Your task to perform on an android device: install app "Adobe Acrobat Reader: Edit PDF" Image 0: 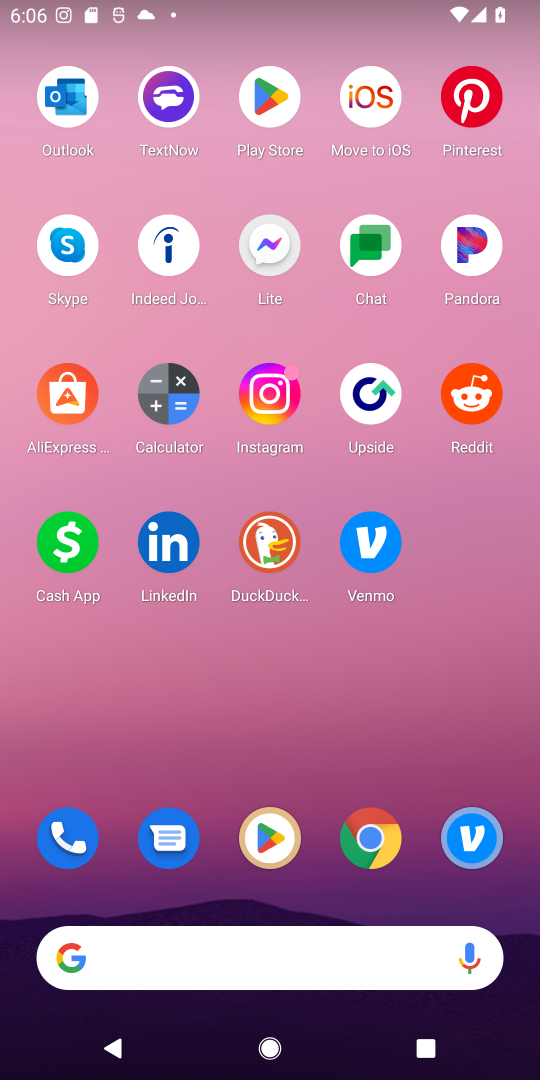
Step 0: click (268, 839)
Your task to perform on an android device: install app "Adobe Acrobat Reader: Edit PDF" Image 1: 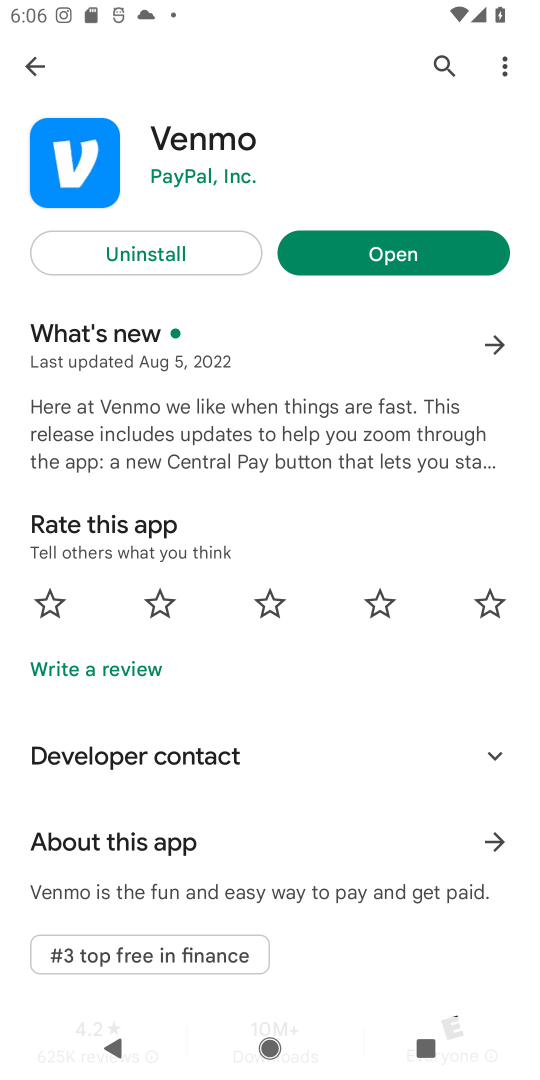
Step 1: click (444, 63)
Your task to perform on an android device: install app "Adobe Acrobat Reader: Edit PDF" Image 2: 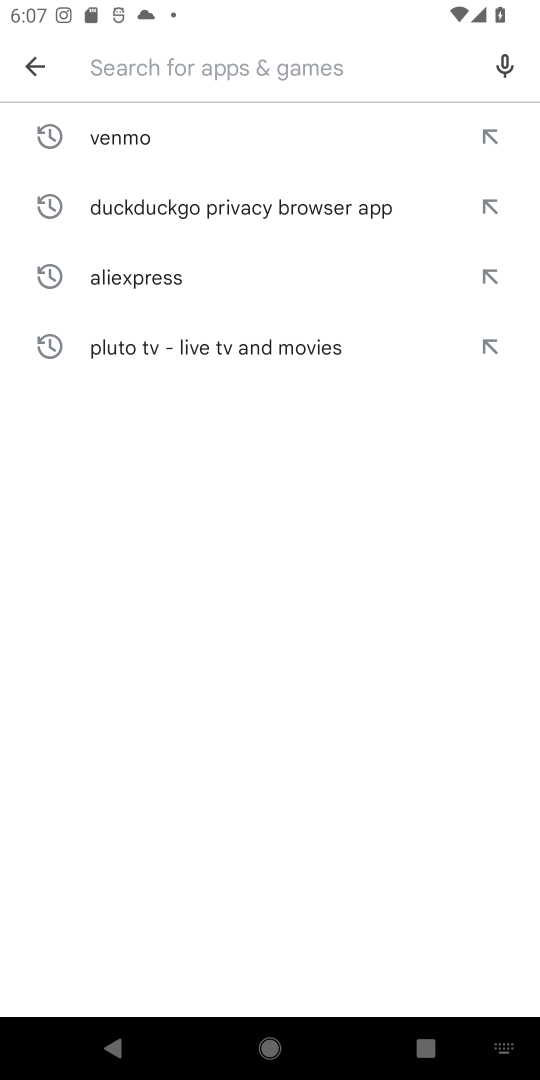
Step 2: type "Adobe Acrobat Reader: Edit PD"
Your task to perform on an android device: install app "Adobe Acrobat Reader: Edit PDF" Image 3: 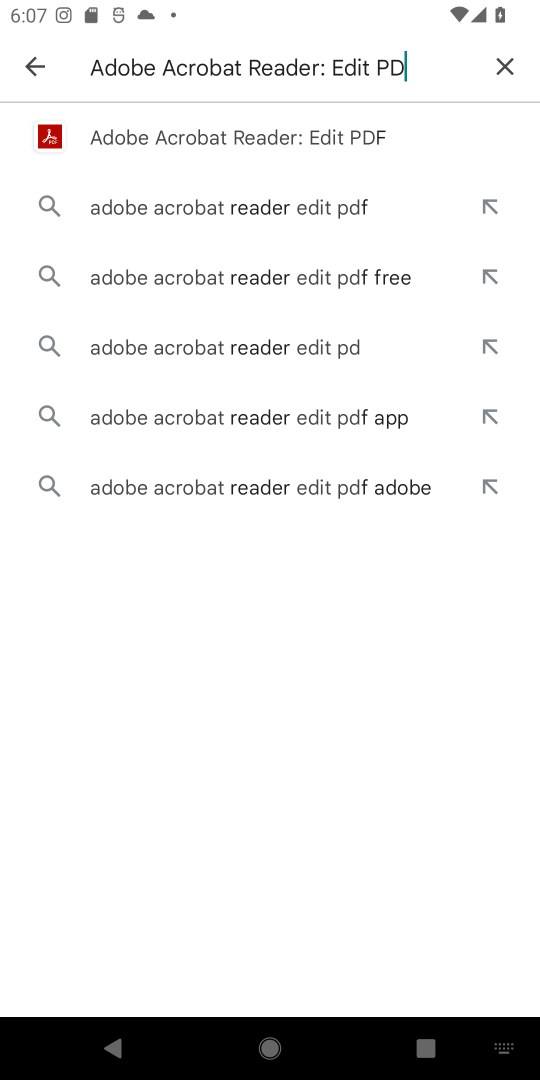
Step 3: click (314, 138)
Your task to perform on an android device: install app "Adobe Acrobat Reader: Edit PDF" Image 4: 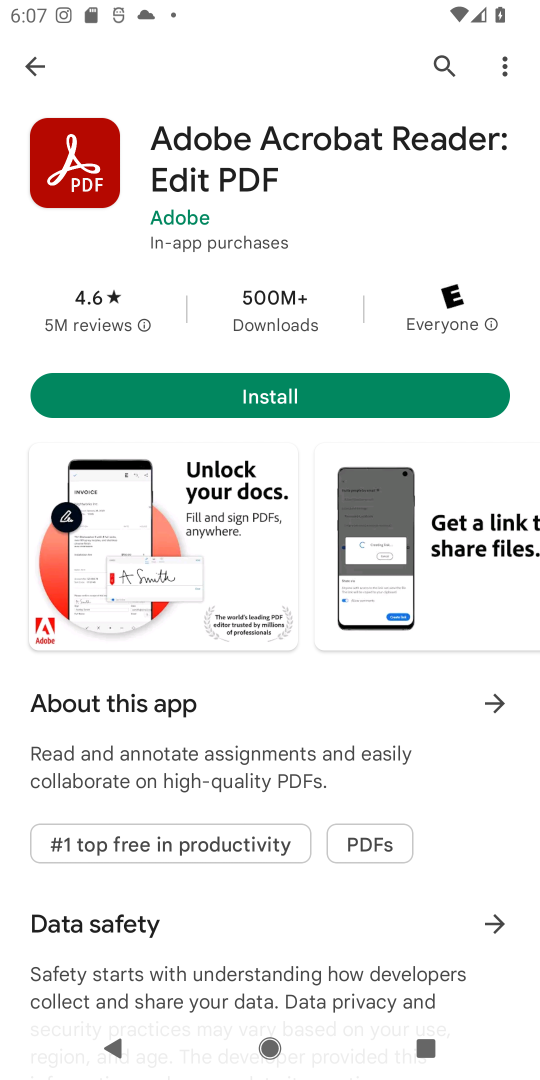
Step 4: click (294, 405)
Your task to perform on an android device: install app "Adobe Acrobat Reader: Edit PDF" Image 5: 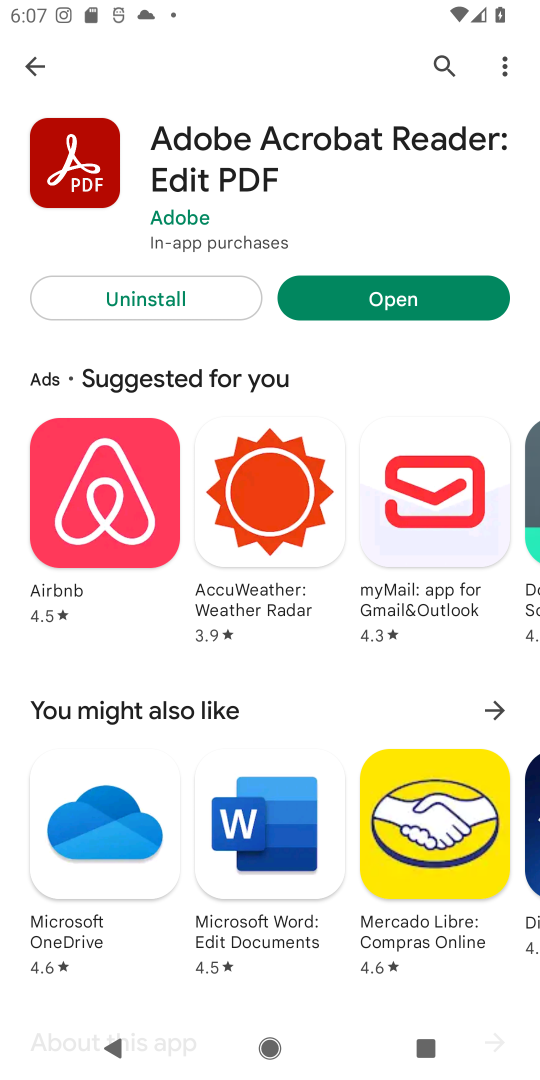
Step 5: task complete